Your task to perform on an android device: turn off notifications in google photos Image 0: 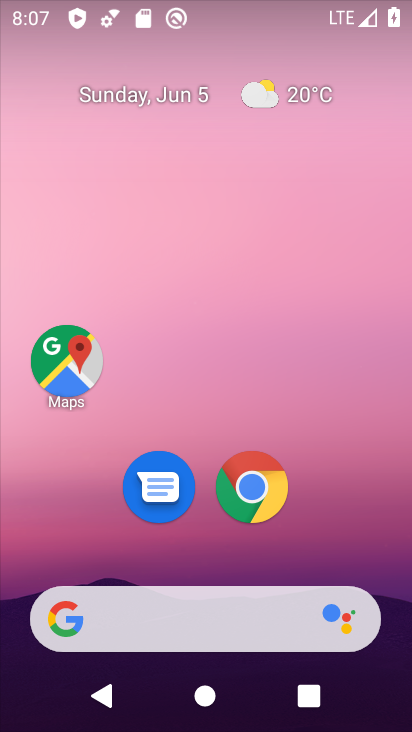
Step 0: drag from (191, 546) to (193, 103)
Your task to perform on an android device: turn off notifications in google photos Image 1: 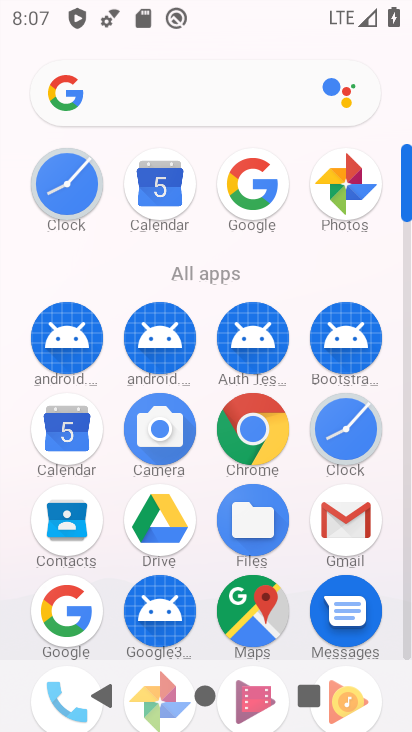
Step 1: drag from (200, 581) to (225, 304)
Your task to perform on an android device: turn off notifications in google photos Image 2: 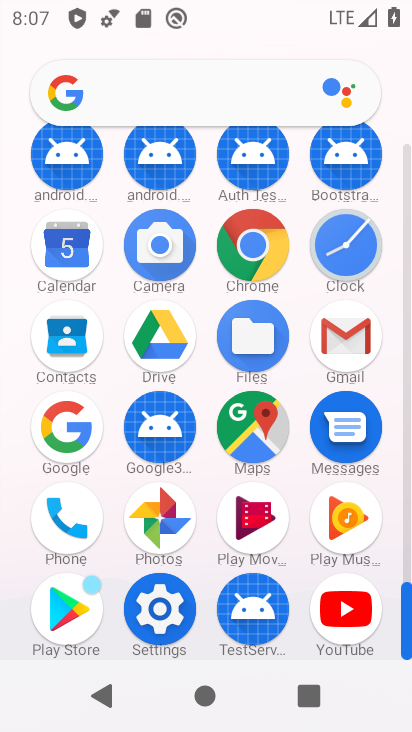
Step 2: click (166, 532)
Your task to perform on an android device: turn off notifications in google photos Image 3: 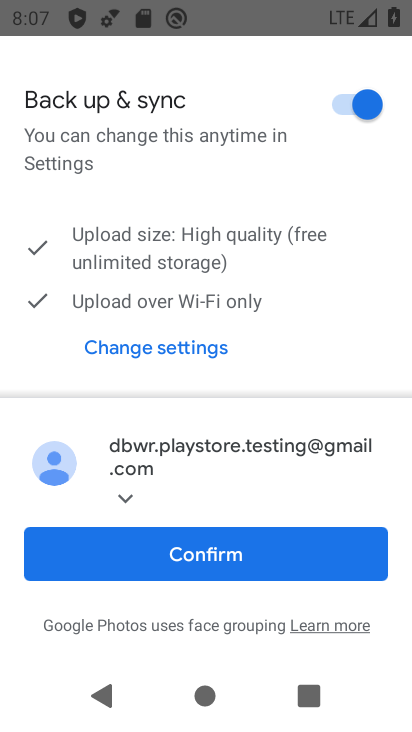
Step 3: click (181, 540)
Your task to perform on an android device: turn off notifications in google photos Image 4: 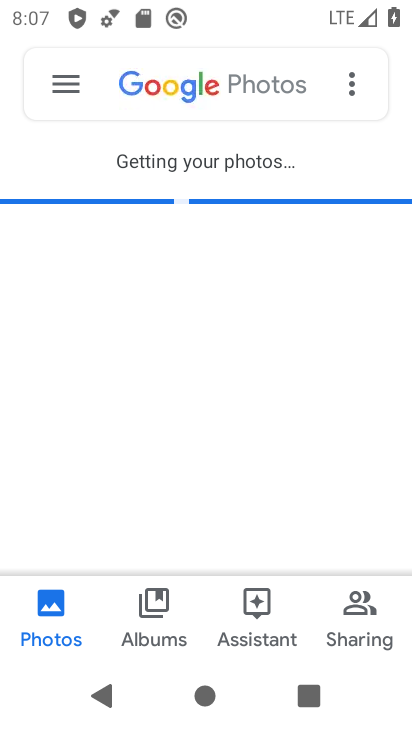
Step 4: click (63, 94)
Your task to perform on an android device: turn off notifications in google photos Image 5: 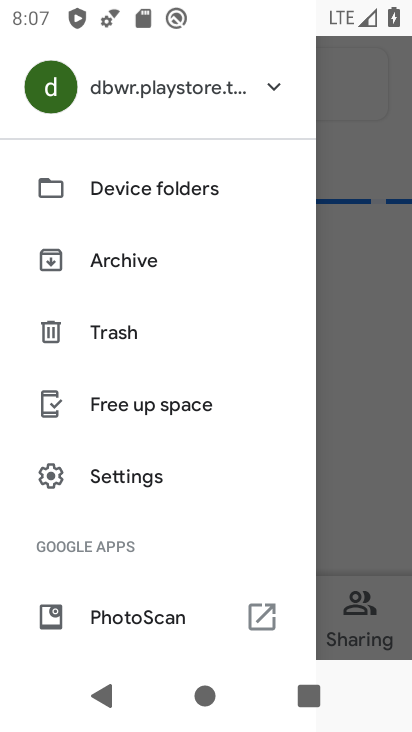
Step 5: drag from (198, 562) to (200, 390)
Your task to perform on an android device: turn off notifications in google photos Image 6: 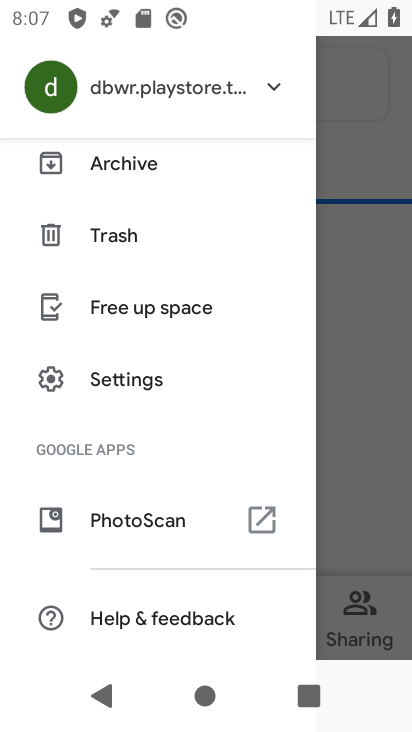
Step 6: click (187, 385)
Your task to perform on an android device: turn off notifications in google photos Image 7: 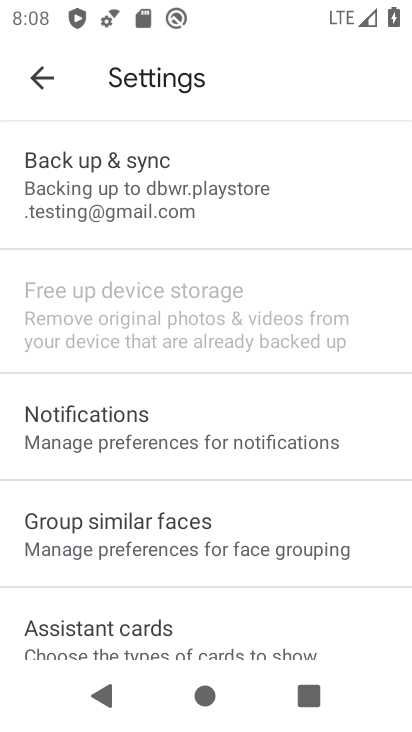
Step 7: drag from (159, 538) to (198, 319)
Your task to perform on an android device: turn off notifications in google photos Image 8: 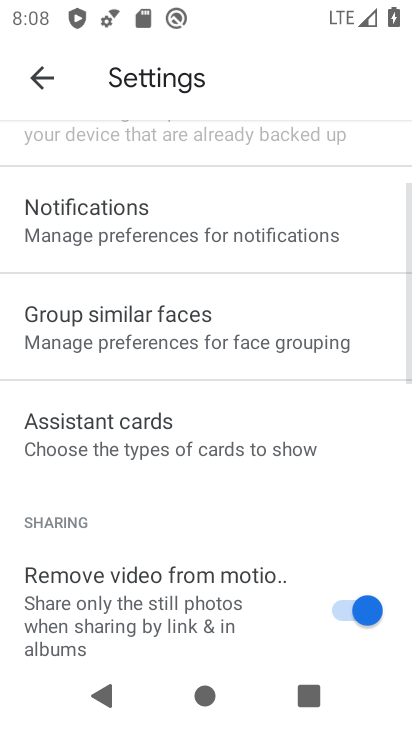
Step 8: drag from (198, 504) to (203, 299)
Your task to perform on an android device: turn off notifications in google photos Image 9: 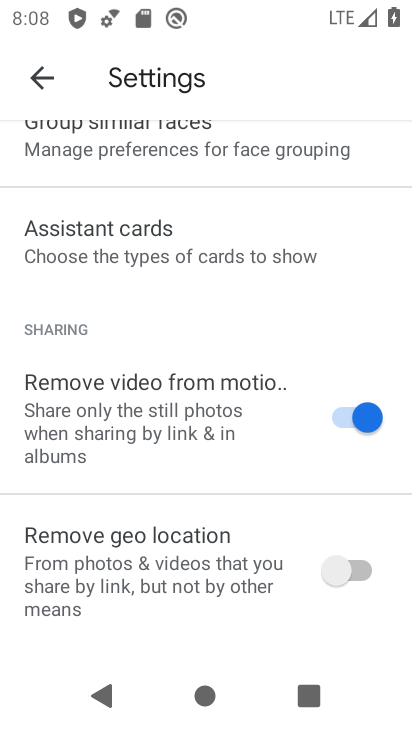
Step 9: drag from (186, 562) to (213, 317)
Your task to perform on an android device: turn off notifications in google photos Image 10: 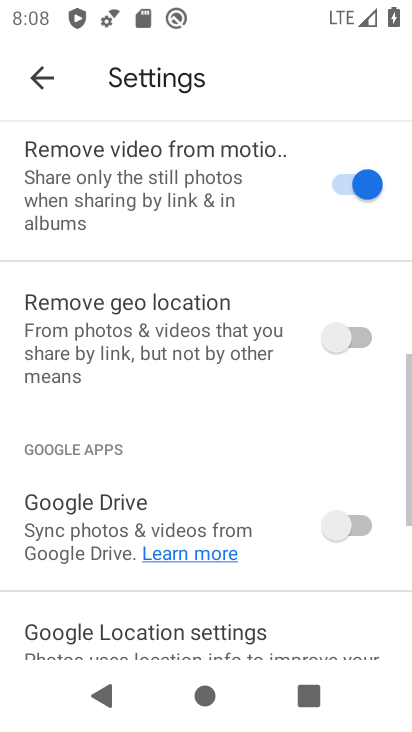
Step 10: drag from (193, 544) to (199, 356)
Your task to perform on an android device: turn off notifications in google photos Image 11: 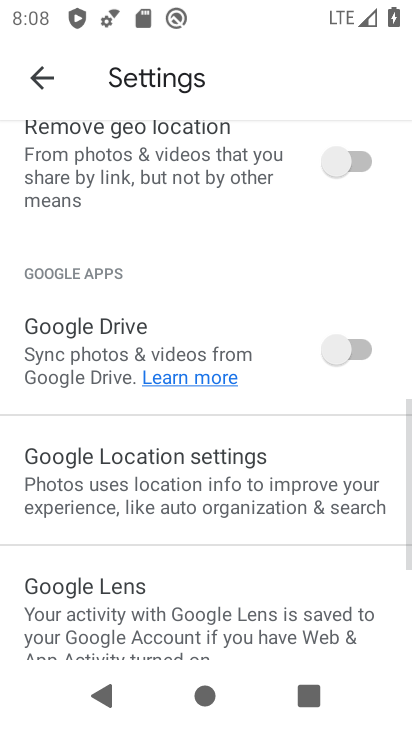
Step 11: drag from (192, 532) to (193, 304)
Your task to perform on an android device: turn off notifications in google photos Image 12: 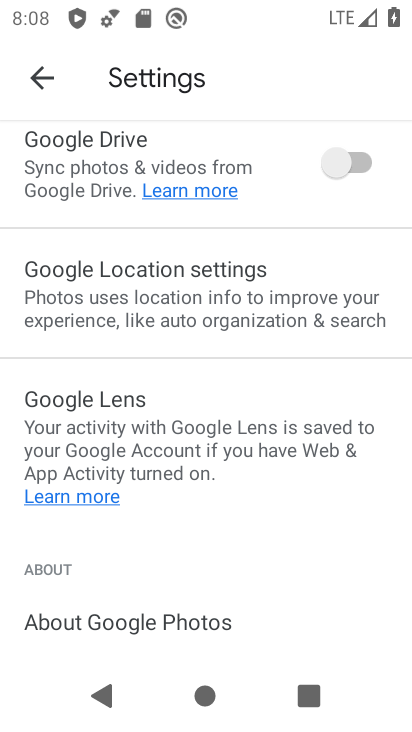
Step 12: drag from (173, 453) to (193, 253)
Your task to perform on an android device: turn off notifications in google photos Image 13: 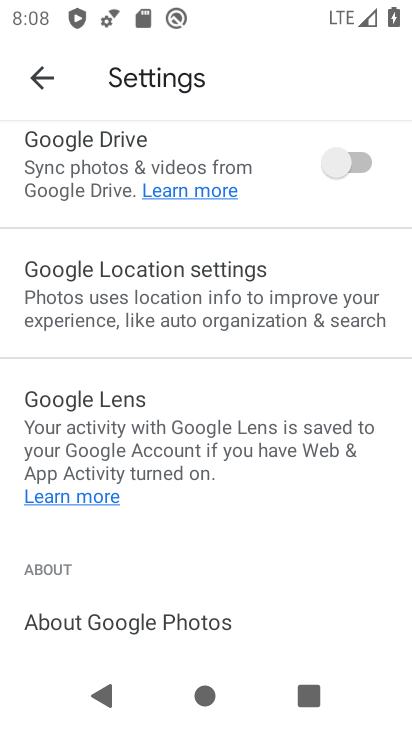
Step 13: drag from (186, 555) to (226, 307)
Your task to perform on an android device: turn off notifications in google photos Image 14: 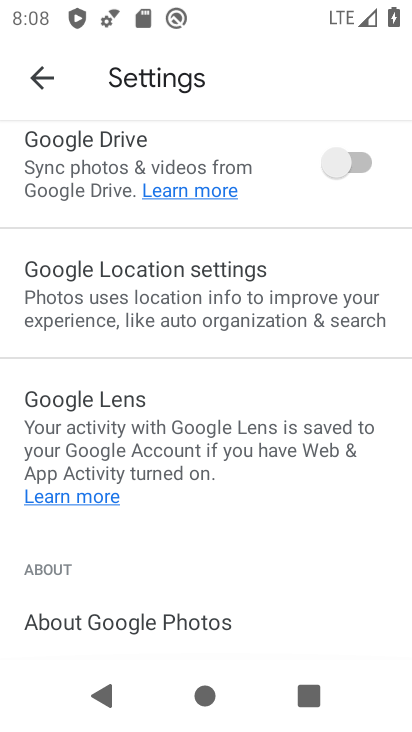
Step 14: drag from (215, 284) to (214, 528)
Your task to perform on an android device: turn off notifications in google photos Image 15: 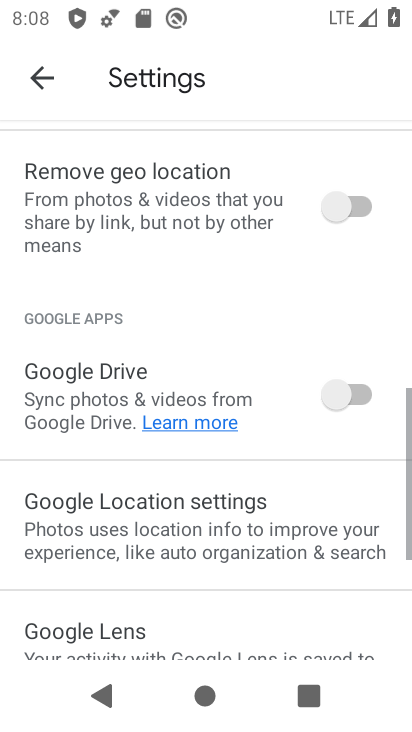
Step 15: drag from (173, 282) to (202, 537)
Your task to perform on an android device: turn off notifications in google photos Image 16: 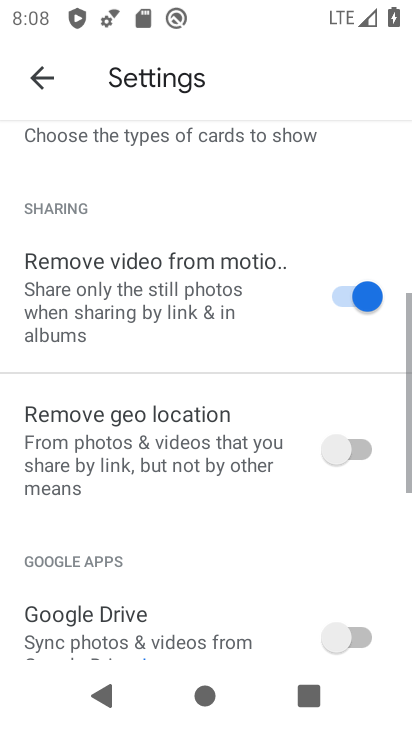
Step 16: drag from (179, 330) to (184, 549)
Your task to perform on an android device: turn off notifications in google photos Image 17: 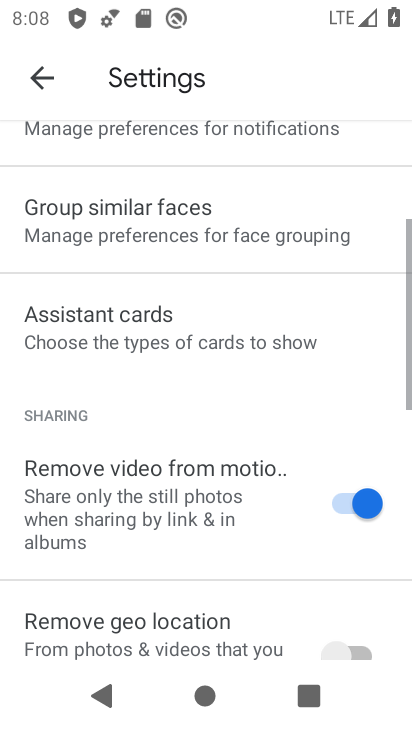
Step 17: drag from (189, 325) to (192, 436)
Your task to perform on an android device: turn off notifications in google photos Image 18: 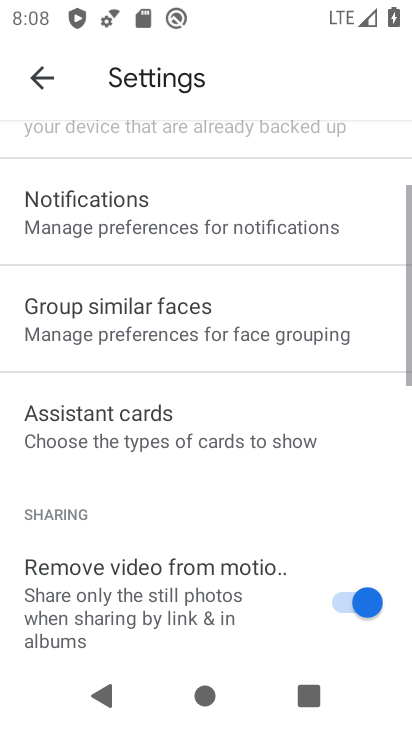
Step 18: drag from (192, 271) to (184, 398)
Your task to perform on an android device: turn off notifications in google photos Image 19: 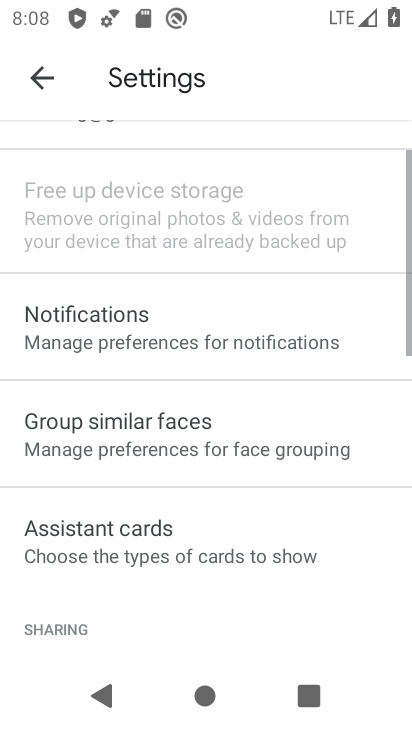
Step 19: drag from (187, 253) to (184, 430)
Your task to perform on an android device: turn off notifications in google photos Image 20: 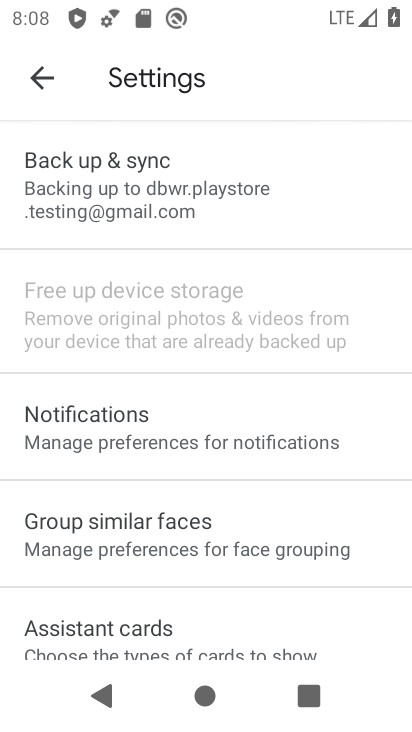
Step 20: click (172, 454)
Your task to perform on an android device: turn off notifications in google photos Image 21: 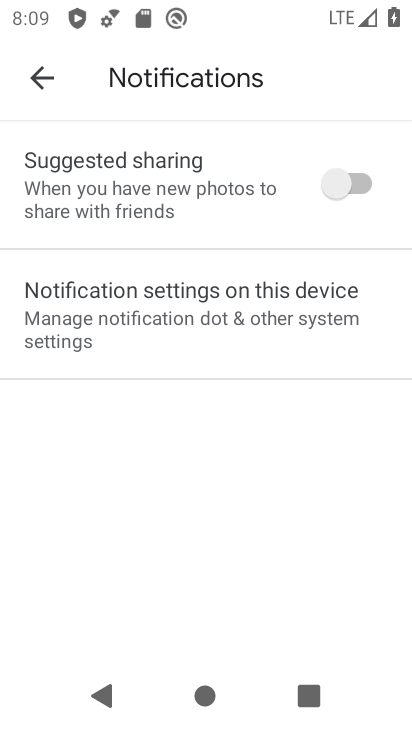
Step 21: click (131, 323)
Your task to perform on an android device: turn off notifications in google photos Image 22: 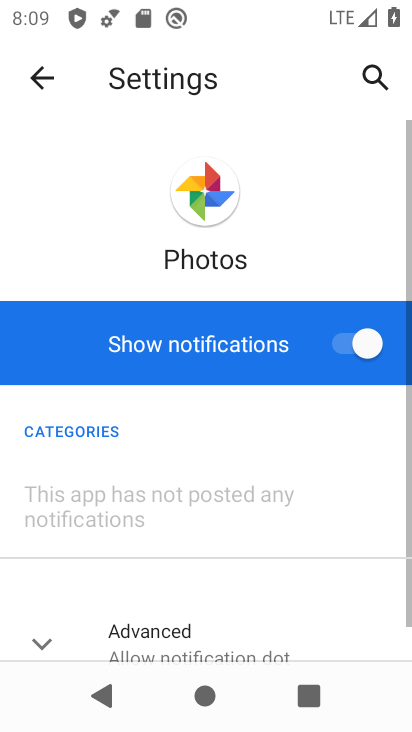
Step 22: drag from (195, 560) to (217, 190)
Your task to perform on an android device: turn off notifications in google photos Image 23: 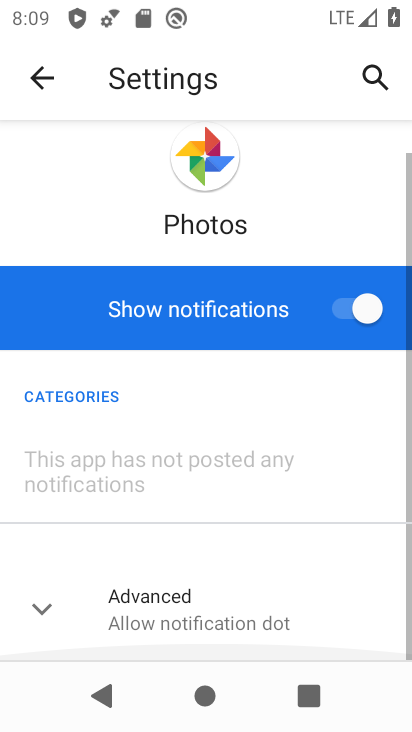
Step 23: drag from (178, 517) to (171, 325)
Your task to perform on an android device: turn off notifications in google photos Image 24: 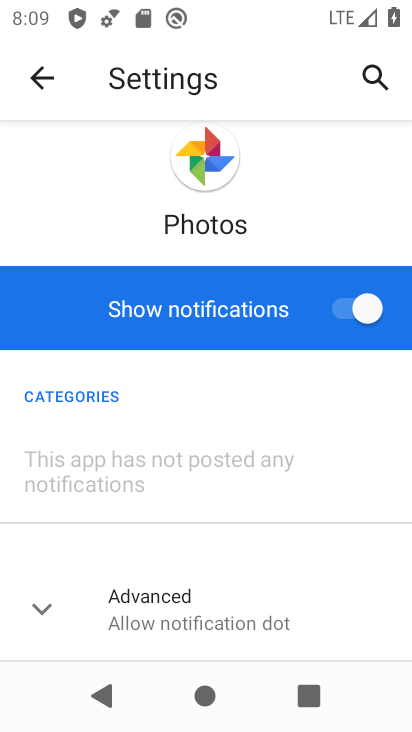
Step 24: click (343, 303)
Your task to perform on an android device: turn off notifications in google photos Image 25: 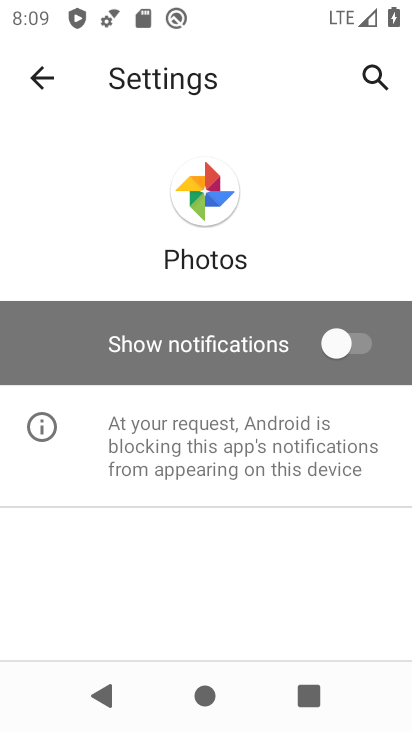
Step 25: task complete